Your task to perform on an android device: Set the phone to "Do not disturb". Image 0: 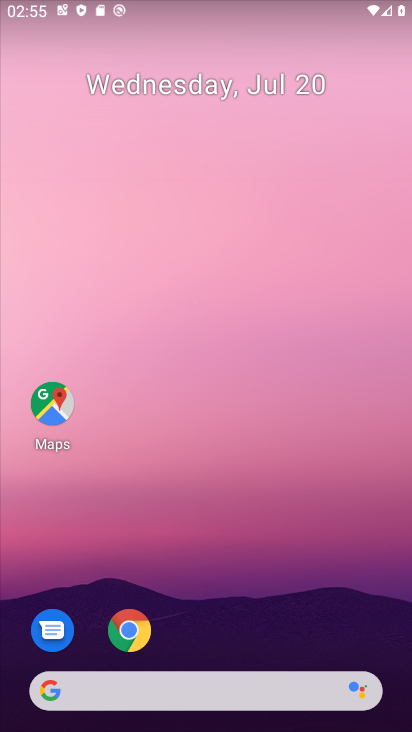
Step 0: drag from (352, 600) to (367, 54)
Your task to perform on an android device: Set the phone to "Do not disturb". Image 1: 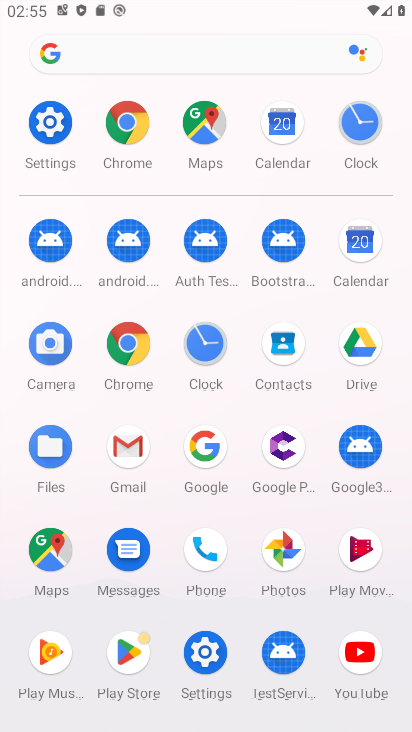
Step 1: click (54, 130)
Your task to perform on an android device: Set the phone to "Do not disturb". Image 2: 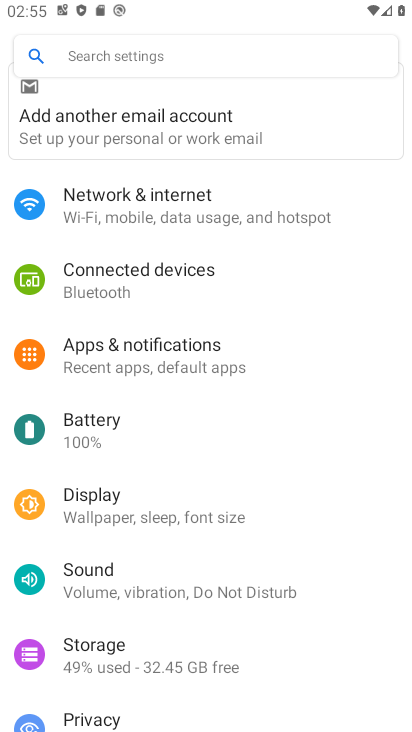
Step 2: drag from (326, 483) to (337, 390)
Your task to perform on an android device: Set the phone to "Do not disturb". Image 3: 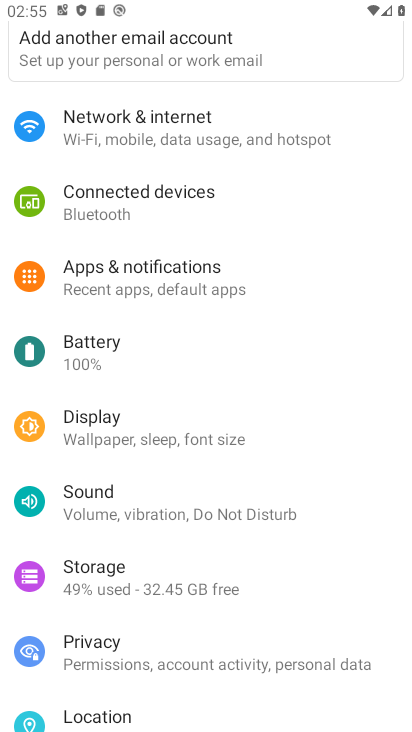
Step 3: drag from (335, 518) to (340, 423)
Your task to perform on an android device: Set the phone to "Do not disturb". Image 4: 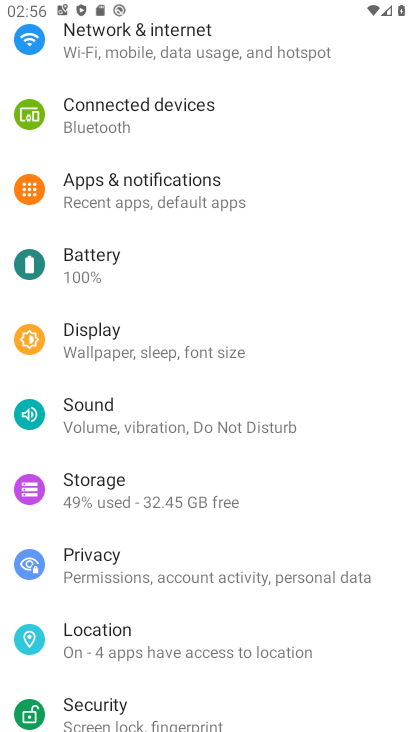
Step 4: drag from (343, 627) to (346, 469)
Your task to perform on an android device: Set the phone to "Do not disturb". Image 5: 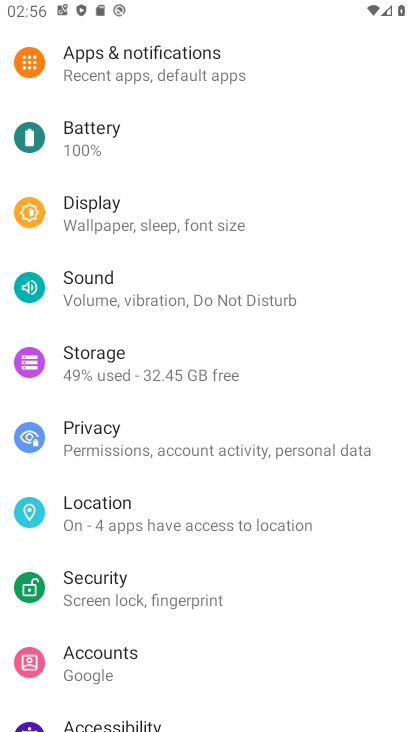
Step 5: drag from (348, 593) to (358, 486)
Your task to perform on an android device: Set the phone to "Do not disturb". Image 6: 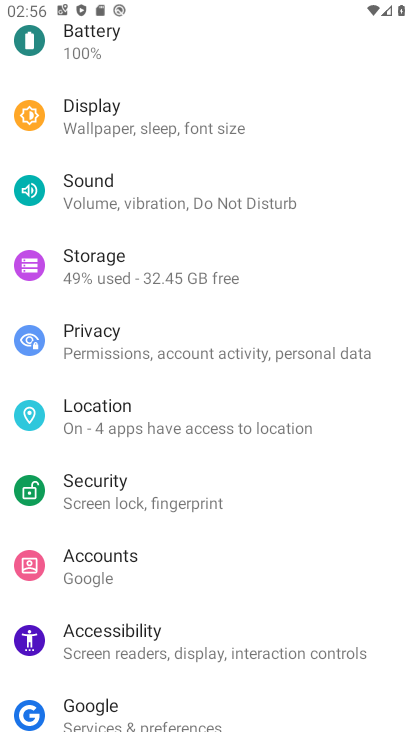
Step 6: drag from (345, 600) to (348, 438)
Your task to perform on an android device: Set the phone to "Do not disturb". Image 7: 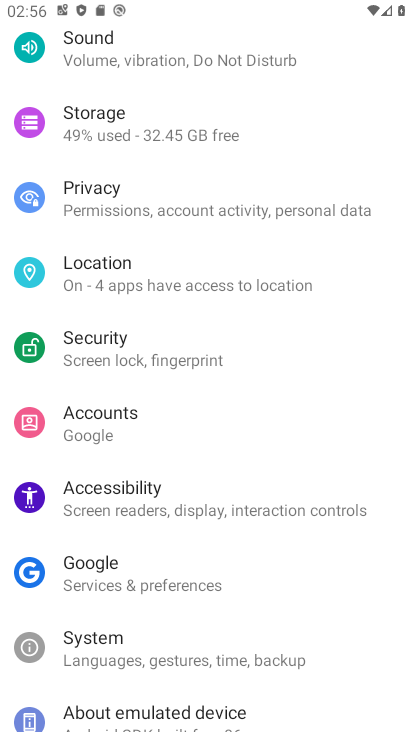
Step 7: drag from (328, 570) to (336, 445)
Your task to perform on an android device: Set the phone to "Do not disturb". Image 8: 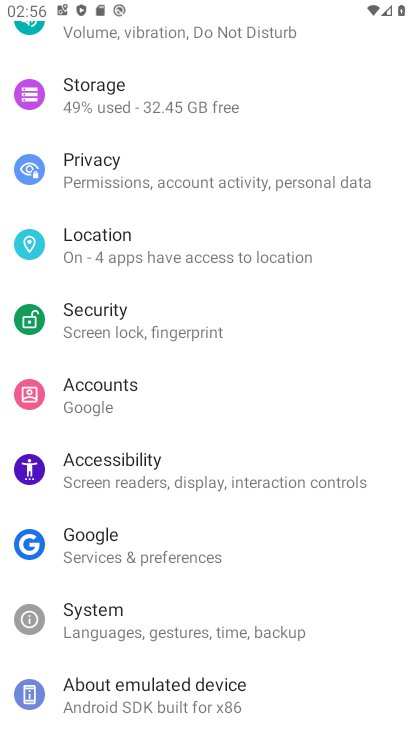
Step 8: drag from (342, 328) to (339, 434)
Your task to perform on an android device: Set the phone to "Do not disturb". Image 9: 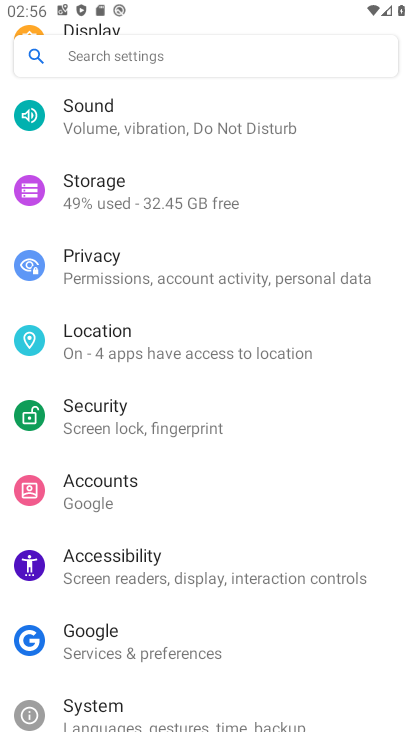
Step 9: drag from (345, 366) to (342, 470)
Your task to perform on an android device: Set the phone to "Do not disturb". Image 10: 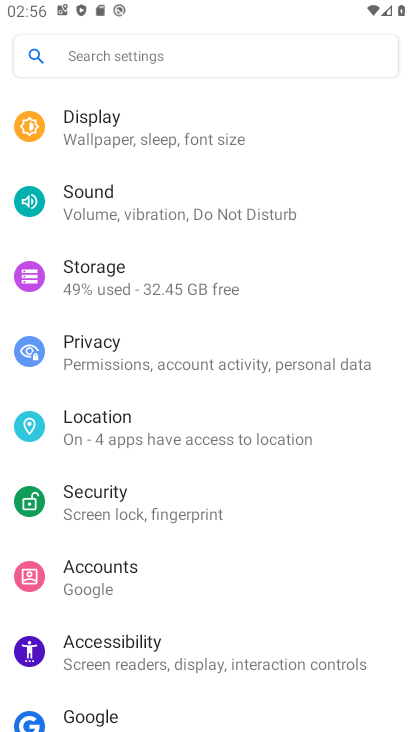
Step 10: drag from (343, 233) to (339, 351)
Your task to perform on an android device: Set the phone to "Do not disturb". Image 11: 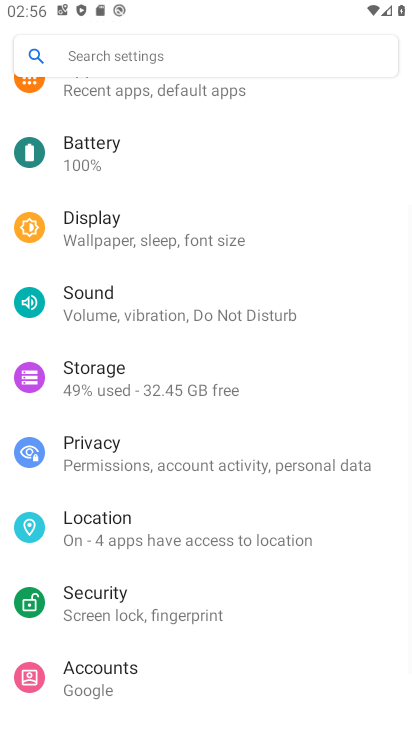
Step 11: drag from (344, 242) to (324, 376)
Your task to perform on an android device: Set the phone to "Do not disturb". Image 12: 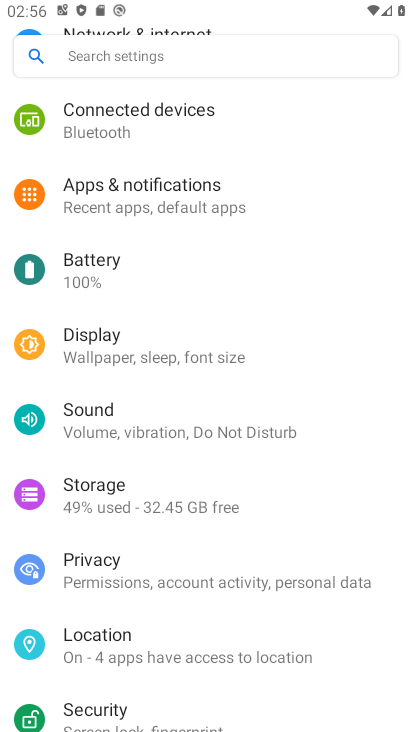
Step 12: drag from (334, 239) to (333, 404)
Your task to perform on an android device: Set the phone to "Do not disturb". Image 13: 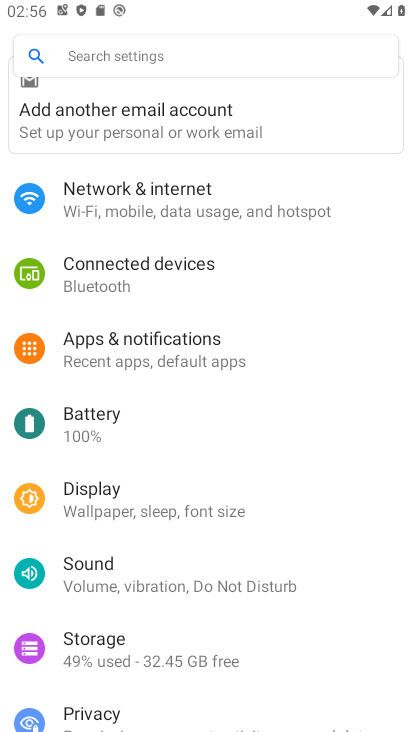
Step 13: click (303, 560)
Your task to perform on an android device: Set the phone to "Do not disturb". Image 14: 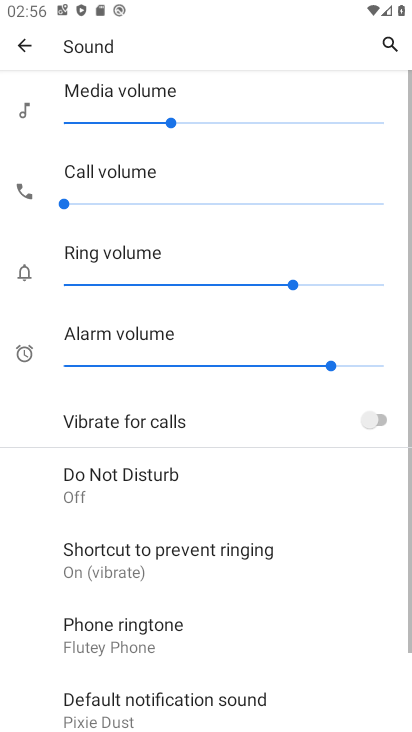
Step 14: drag from (301, 585) to (309, 518)
Your task to perform on an android device: Set the phone to "Do not disturb". Image 15: 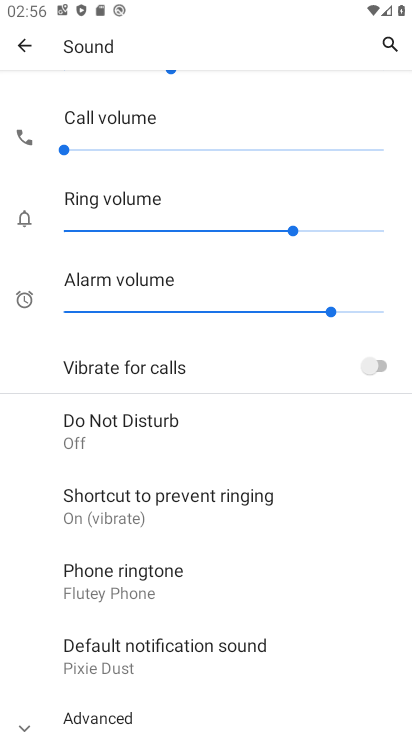
Step 15: drag from (305, 584) to (320, 517)
Your task to perform on an android device: Set the phone to "Do not disturb". Image 16: 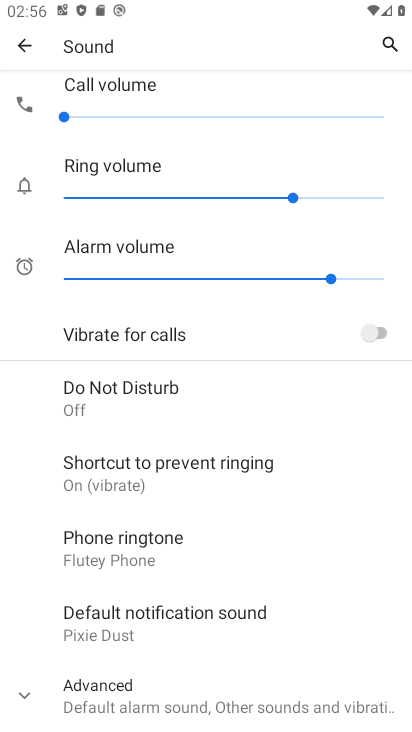
Step 16: click (200, 396)
Your task to perform on an android device: Set the phone to "Do not disturb". Image 17: 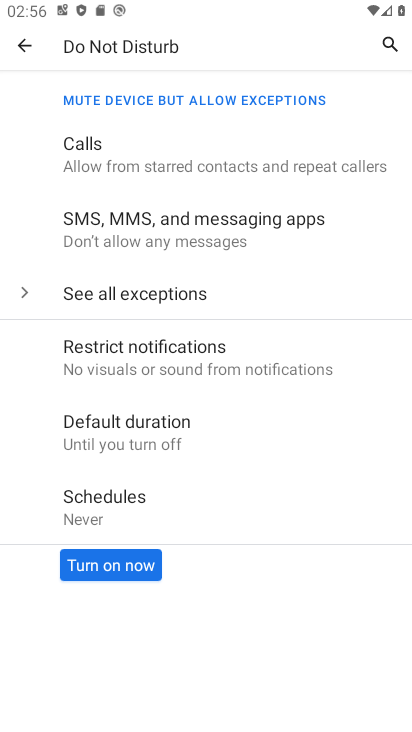
Step 17: click (143, 587)
Your task to perform on an android device: Set the phone to "Do not disturb". Image 18: 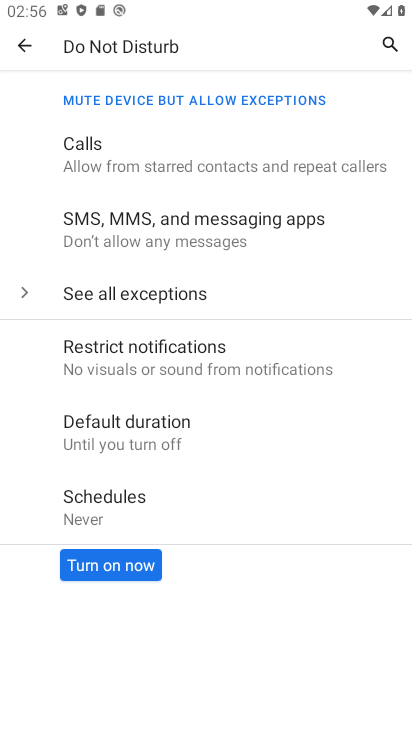
Step 18: click (133, 561)
Your task to perform on an android device: Set the phone to "Do not disturb". Image 19: 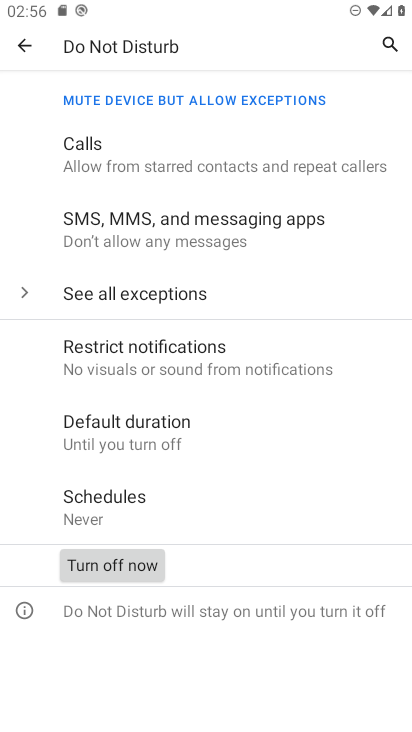
Step 19: task complete